Your task to perform on an android device: turn off wifi Image 0: 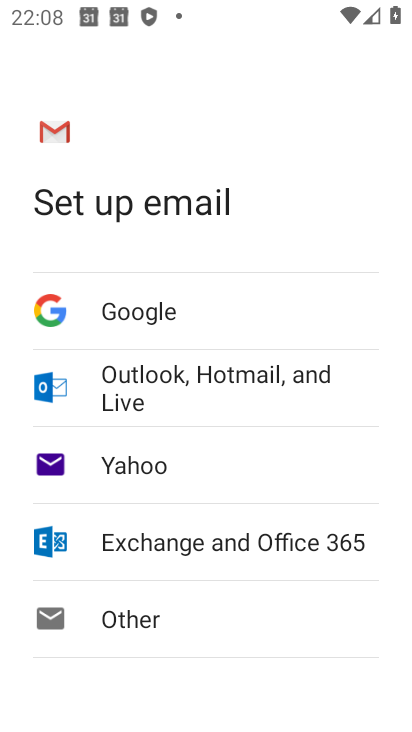
Step 0: press home button
Your task to perform on an android device: turn off wifi Image 1: 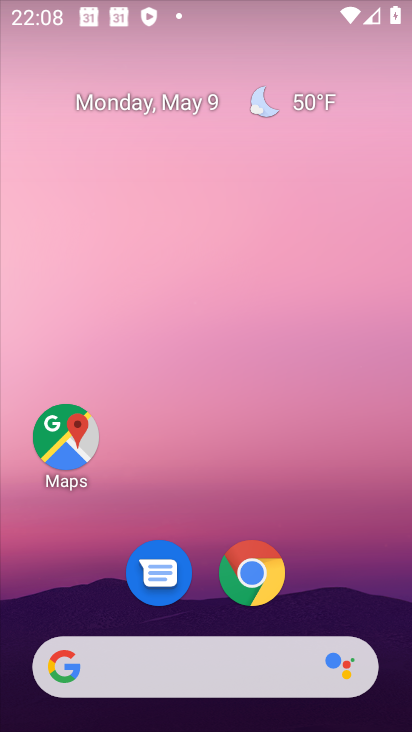
Step 1: drag from (349, 590) to (371, 195)
Your task to perform on an android device: turn off wifi Image 2: 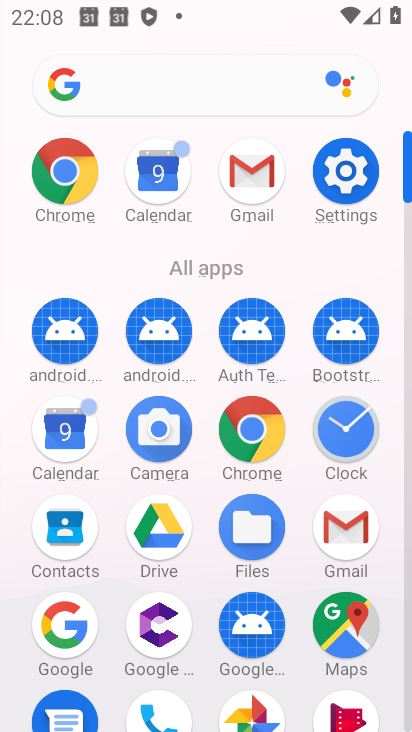
Step 2: click (344, 191)
Your task to perform on an android device: turn off wifi Image 3: 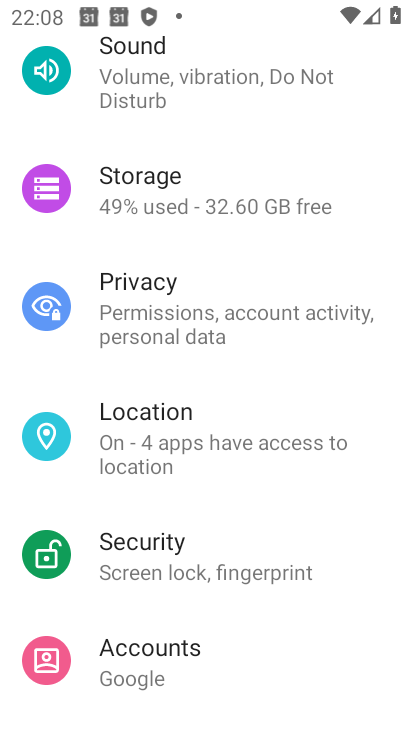
Step 3: drag from (178, 636) to (257, 145)
Your task to perform on an android device: turn off wifi Image 4: 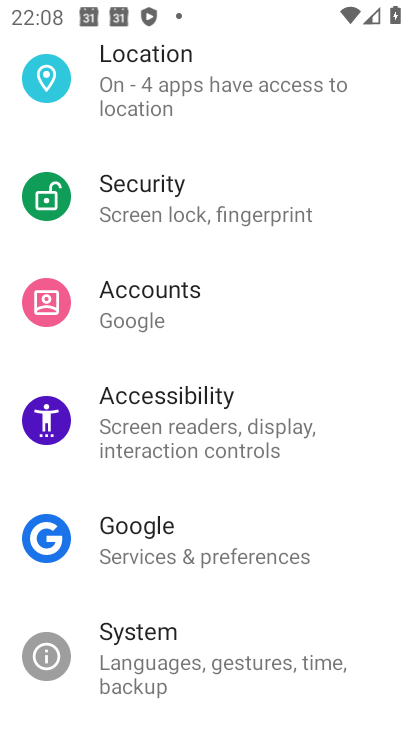
Step 4: drag from (202, 638) to (262, 220)
Your task to perform on an android device: turn off wifi Image 5: 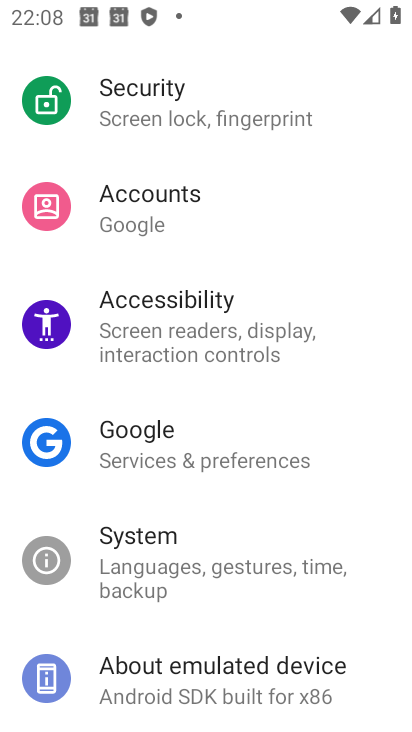
Step 5: drag from (276, 197) to (241, 633)
Your task to perform on an android device: turn off wifi Image 6: 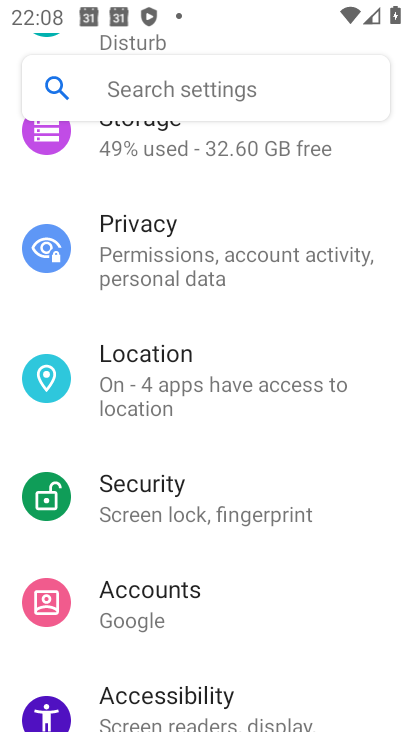
Step 6: drag from (279, 255) to (272, 645)
Your task to perform on an android device: turn off wifi Image 7: 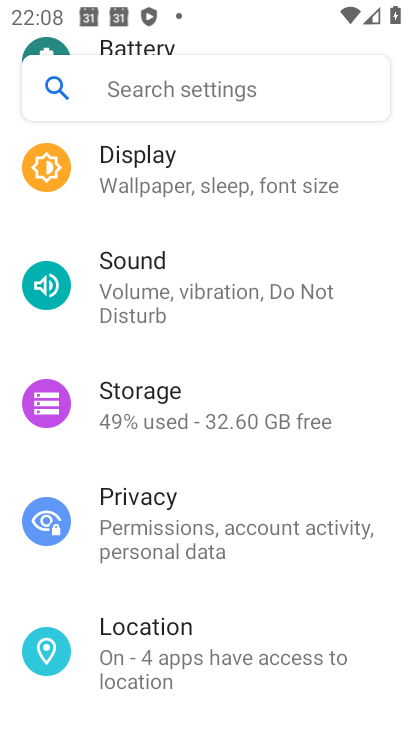
Step 7: drag from (306, 267) to (276, 635)
Your task to perform on an android device: turn off wifi Image 8: 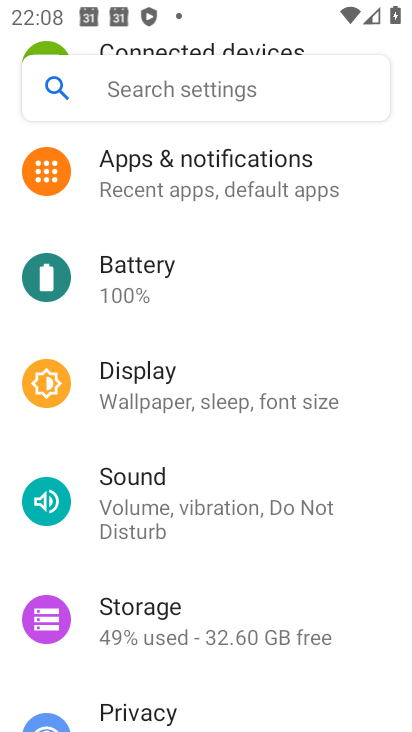
Step 8: drag from (317, 331) to (277, 682)
Your task to perform on an android device: turn off wifi Image 9: 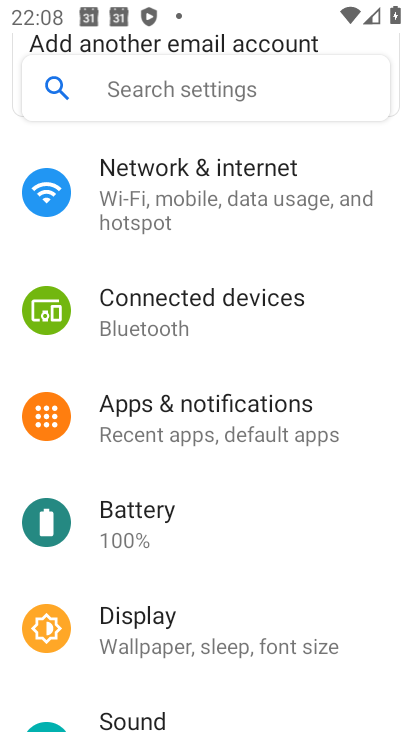
Step 9: drag from (310, 329) to (276, 674)
Your task to perform on an android device: turn off wifi Image 10: 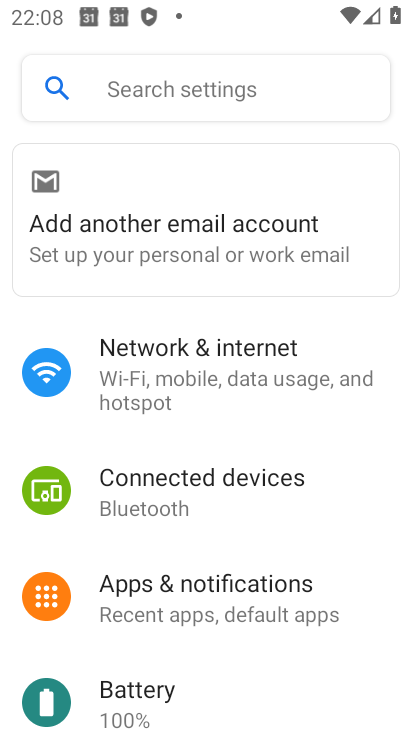
Step 10: click (250, 378)
Your task to perform on an android device: turn off wifi Image 11: 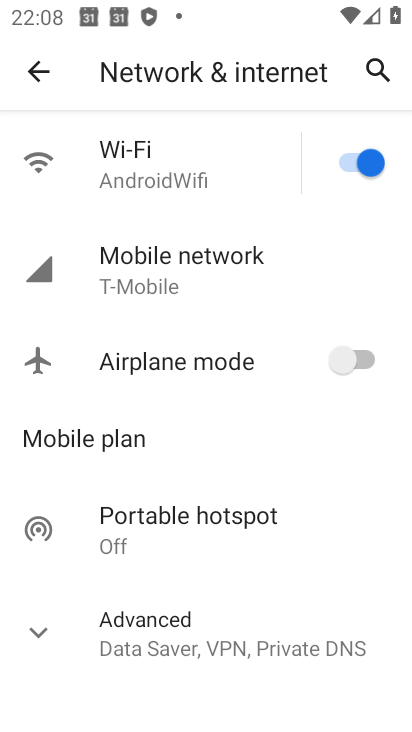
Step 11: click (357, 149)
Your task to perform on an android device: turn off wifi Image 12: 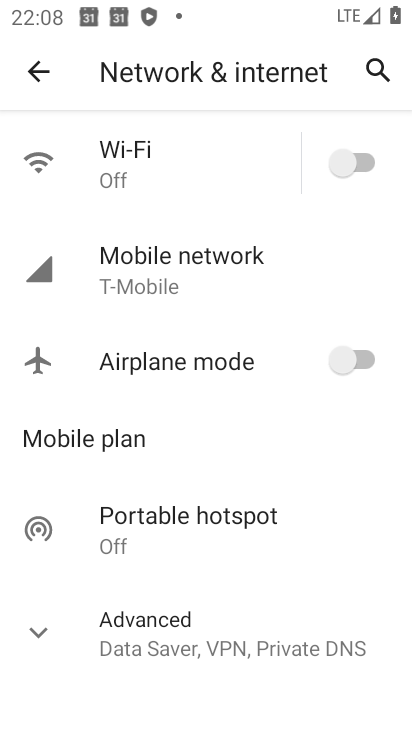
Step 12: task complete